Your task to perform on an android device: Turn on the flashlight Image 0: 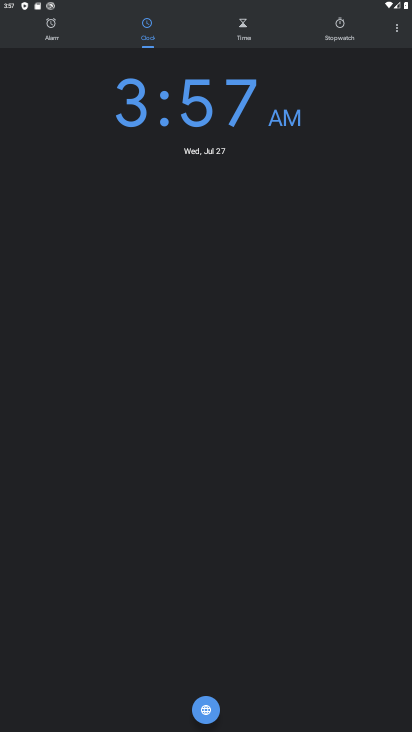
Step 0: press home button
Your task to perform on an android device: Turn on the flashlight Image 1: 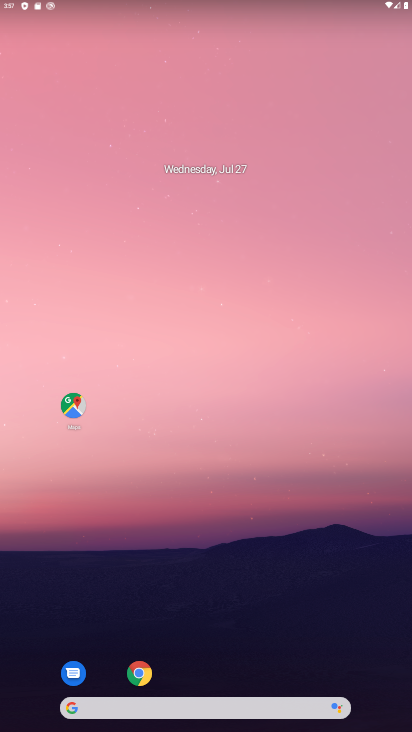
Step 1: drag from (224, 8) to (235, 361)
Your task to perform on an android device: Turn on the flashlight Image 2: 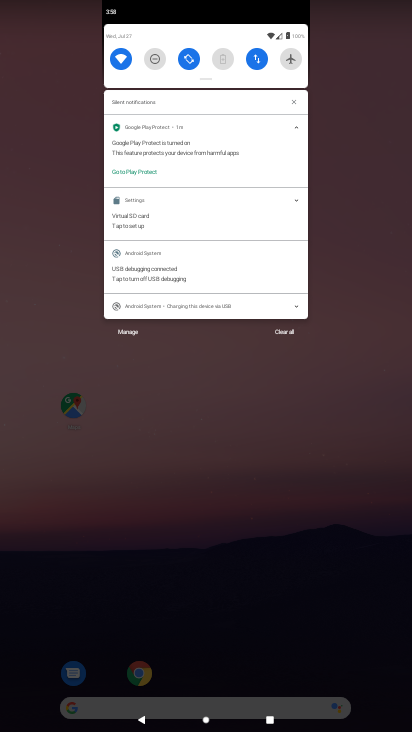
Step 2: drag from (196, 30) to (223, 310)
Your task to perform on an android device: Turn on the flashlight Image 3: 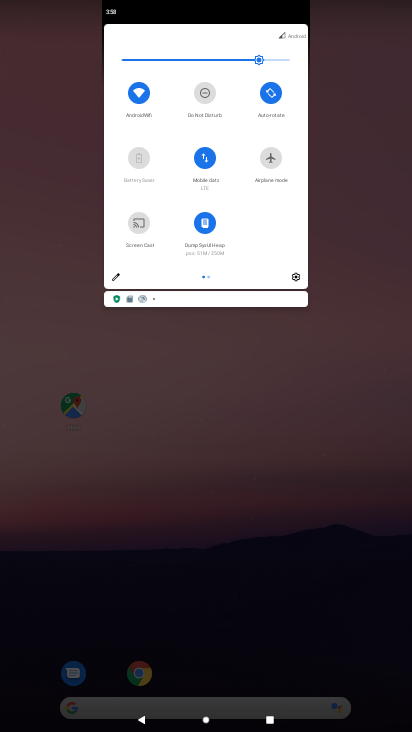
Step 3: click (116, 283)
Your task to perform on an android device: Turn on the flashlight Image 4: 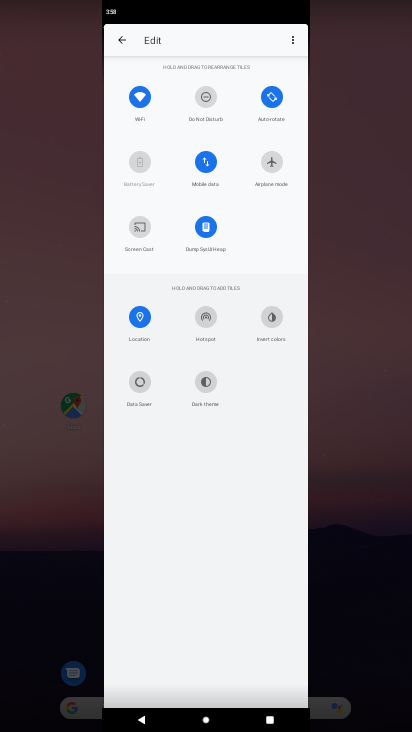
Step 4: task complete